Your task to perform on an android device: Open Android settings Image 0: 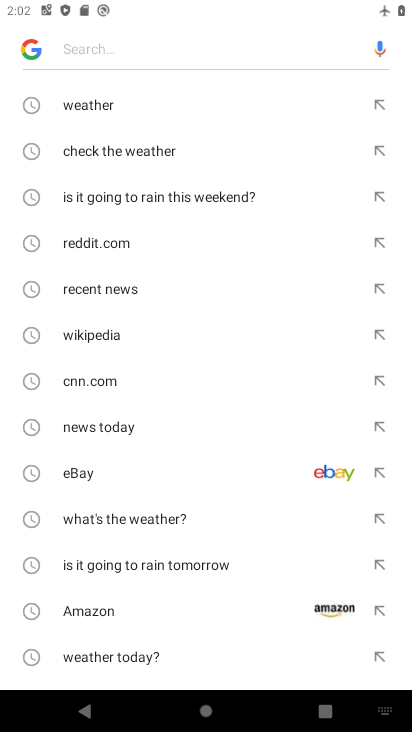
Step 0: press back button
Your task to perform on an android device: Open Android settings Image 1: 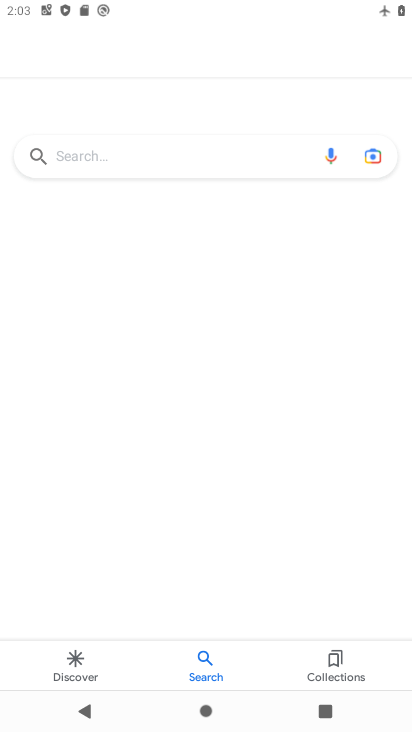
Step 1: press back button
Your task to perform on an android device: Open Android settings Image 2: 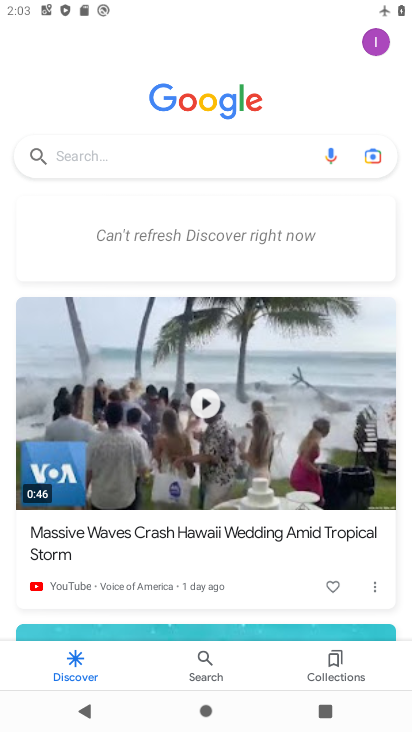
Step 2: press back button
Your task to perform on an android device: Open Android settings Image 3: 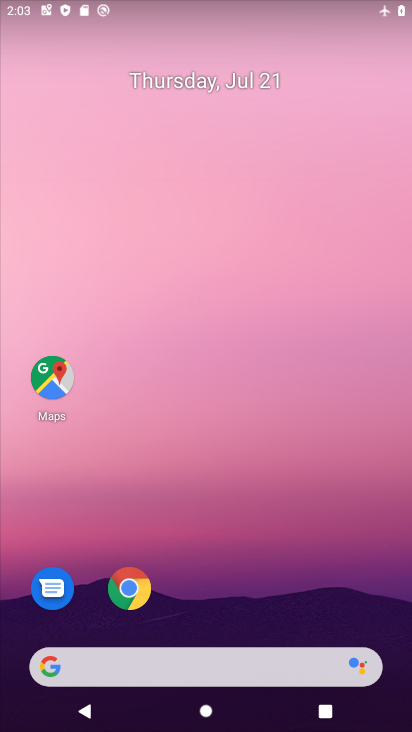
Step 3: drag from (203, 628) to (256, 0)
Your task to perform on an android device: Open Android settings Image 4: 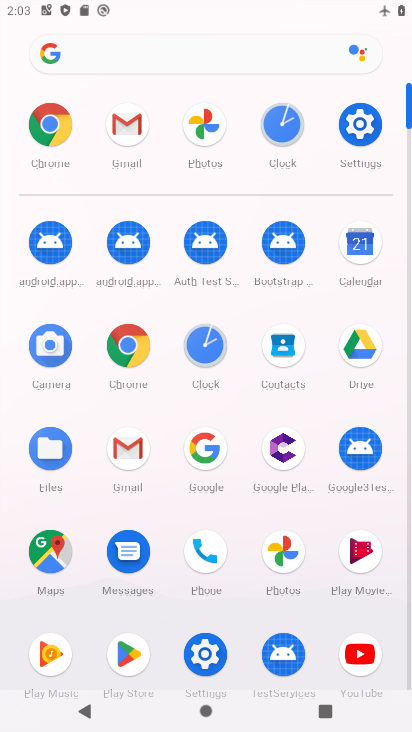
Step 4: click (358, 145)
Your task to perform on an android device: Open Android settings Image 5: 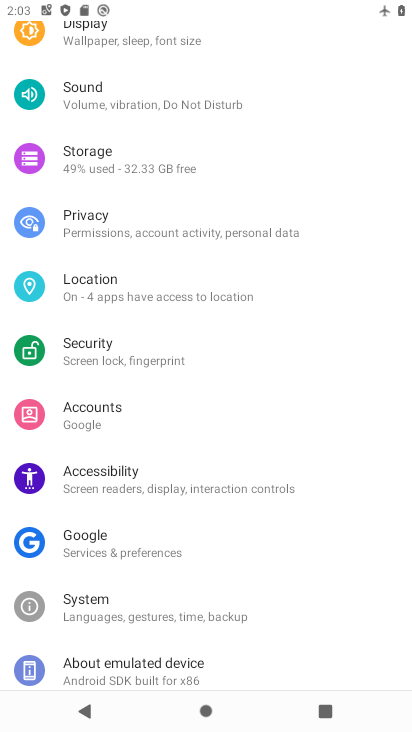
Step 5: task complete